Your task to perform on an android device: turn on data saver in the chrome app Image 0: 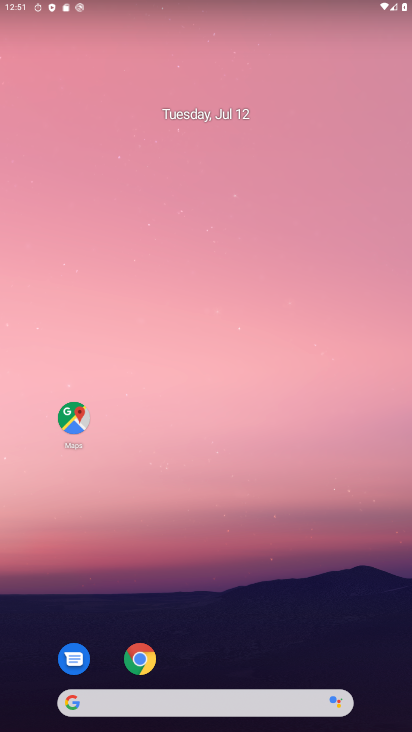
Step 0: drag from (268, 647) to (270, 89)
Your task to perform on an android device: turn on data saver in the chrome app Image 1: 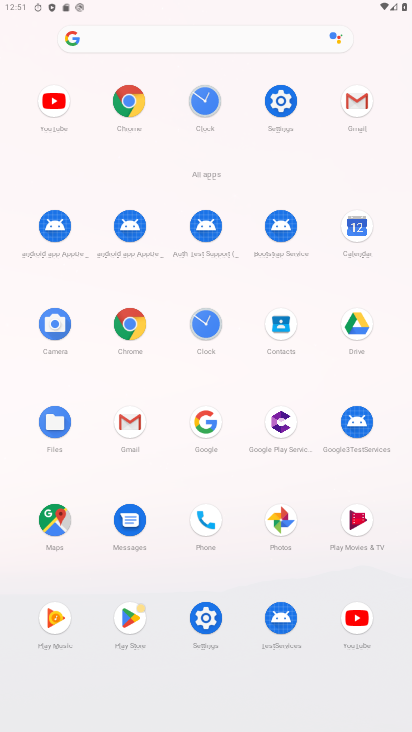
Step 1: click (130, 324)
Your task to perform on an android device: turn on data saver in the chrome app Image 2: 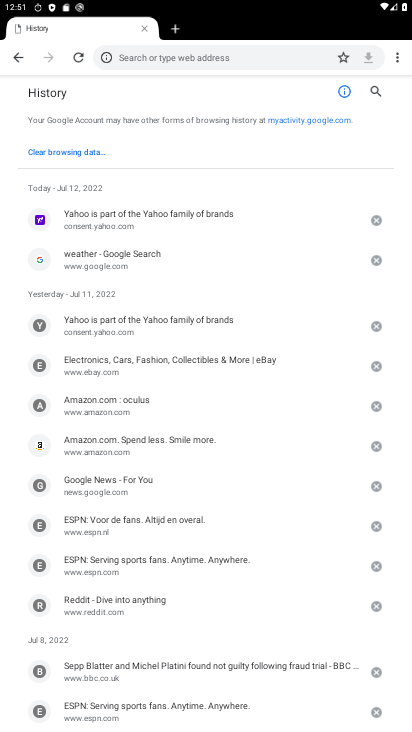
Step 2: drag from (401, 48) to (315, 266)
Your task to perform on an android device: turn on data saver in the chrome app Image 3: 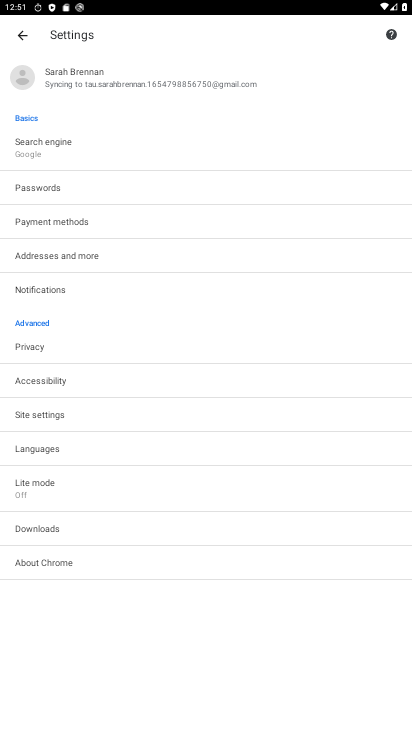
Step 3: click (94, 491)
Your task to perform on an android device: turn on data saver in the chrome app Image 4: 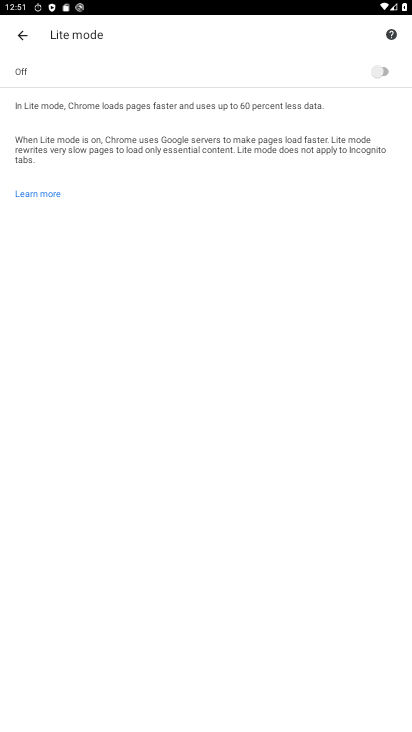
Step 4: click (384, 72)
Your task to perform on an android device: turn on data saver in the chrome app Image 5: 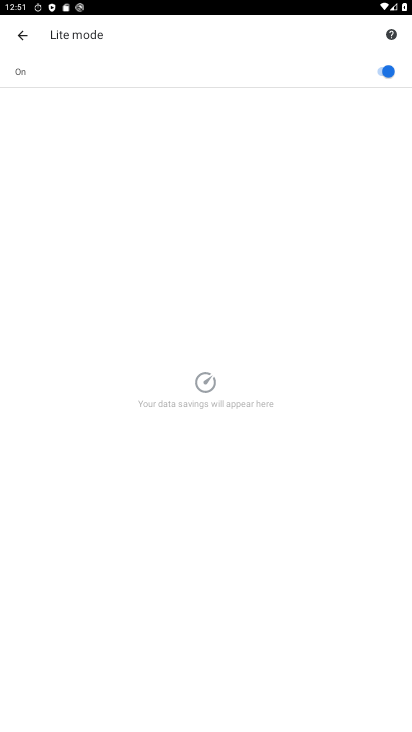
Step 5: task complete